Your task to perform on an android device: Open calendar and show me the third week of next month Image 0: 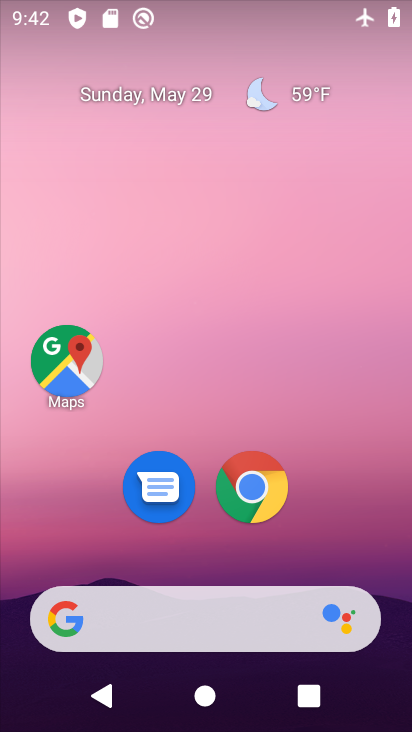
Step 0: drag from (389, 701) to (370, 219)
Your task to perform on an android device: Open calendar and show me the third week of next month Image 1: 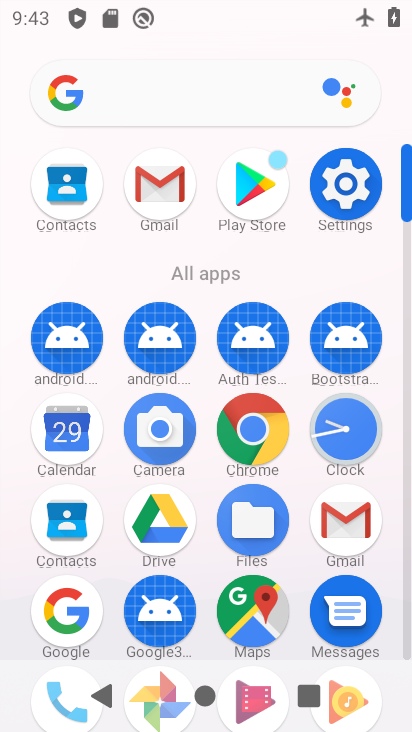
Step 1: click (338, 185)
Your task to perform on an android device: Open calendar and show me the third week of next month Image 2: 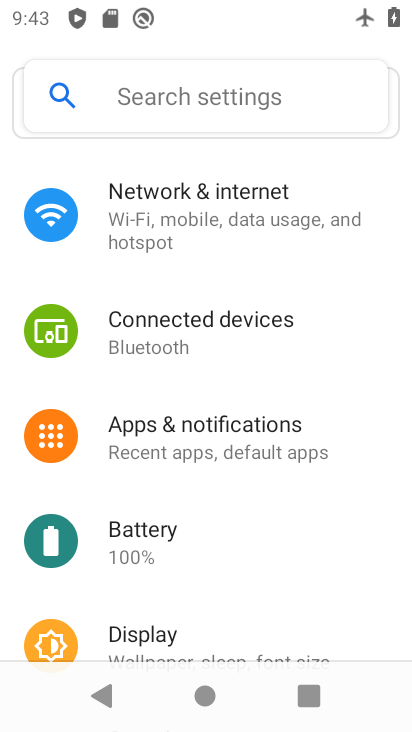
Step 2: press home button
Your task to perform on an android device: Open calendar and show me the third week of next month Image 3: 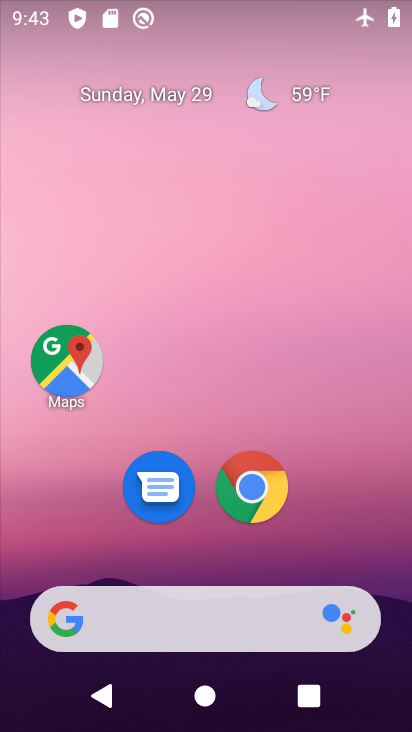
Step 3: drag from (405, 575) to (396, 157)
Your task to perform on an android device: Open calendar and show me the third week of next month Image 4: 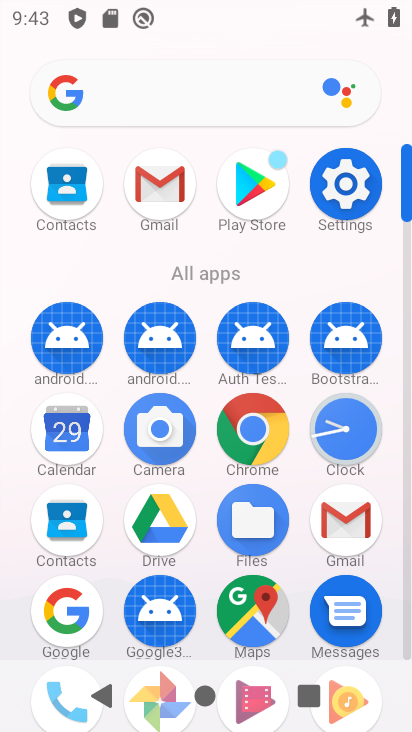
Step 4: click (60, 449)
Your task to perform on an android device: Open calendar and show me the third week of next month Image 5: 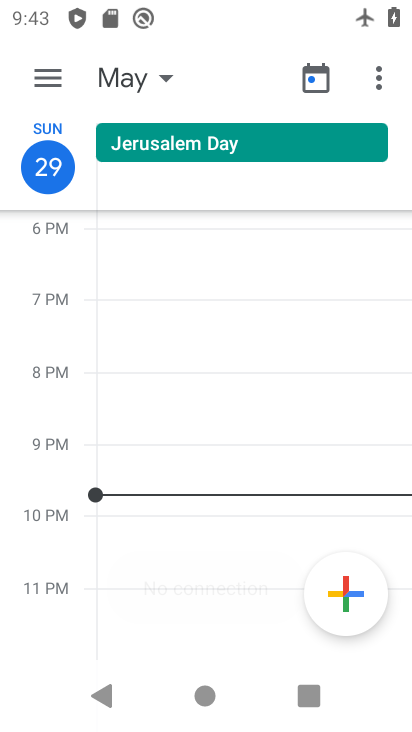
Step 5: click (163, 81)
Your task to perform on an android device: Open calendar and show me the third week of next month Image 6: 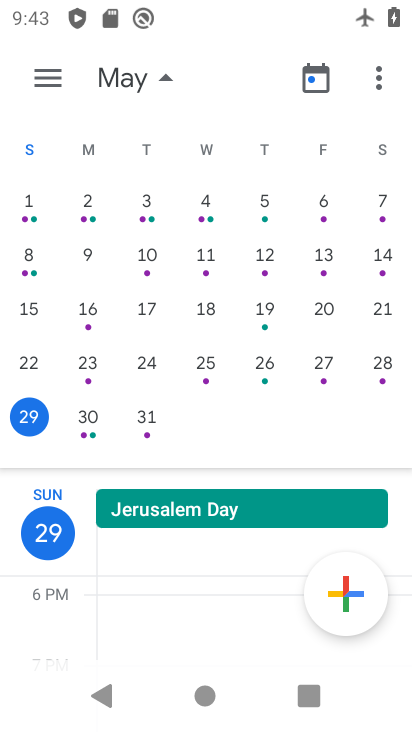
Step 6: drag from (401, 273) to (84, 254)
Your task to perform on an android device: Open calendar and show me the third week of next month Image 7: 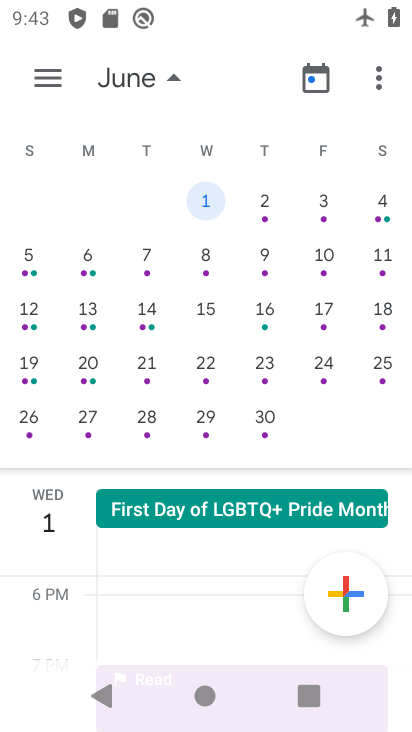
Step 7: click (262, 311)
Your task to perform on an android device: Open calendar and show me the third week of next month Image 8: 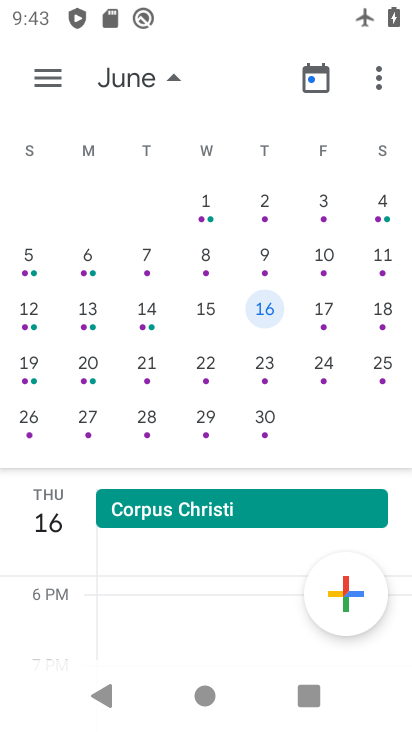
Step 8: task complete